Your task to perform on an android device: Go to network settings Image 0: 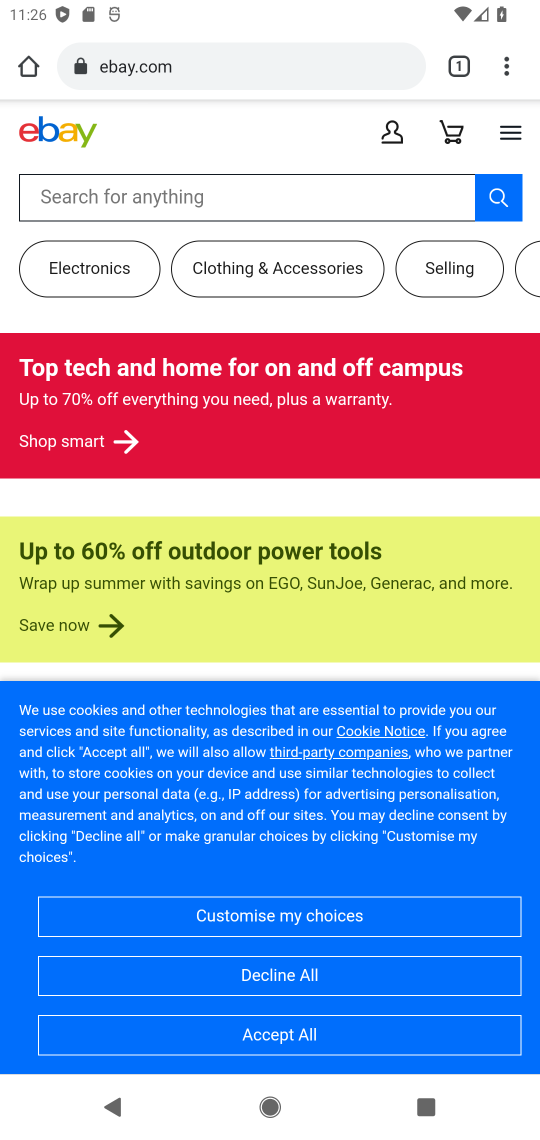
Step 0: task complete